Your task to perform on an android device: set an alarm Image 0: 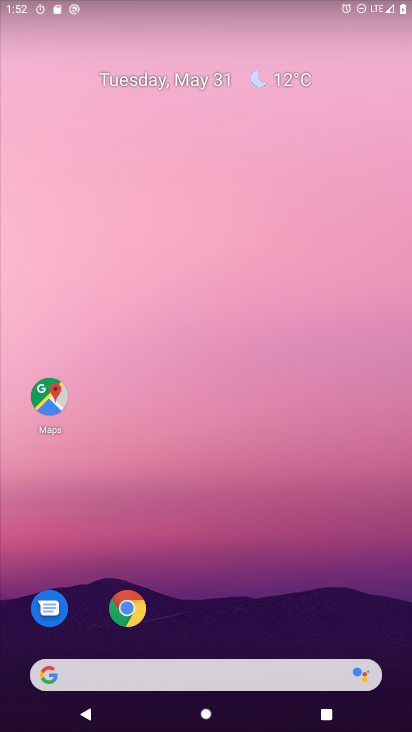
Step 0: drag from (232, 641) to (184, 22)
Your task to perform on an android device: set an alarm Image 1: 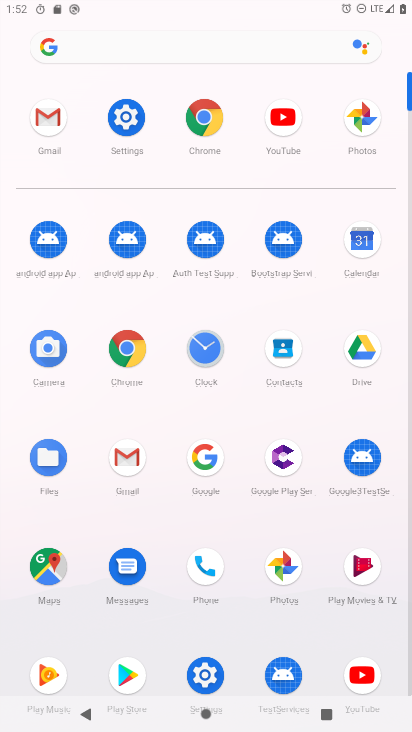
Step 1: click (197, 348)
Your task to perform on an android device: set an alarm Image 2: 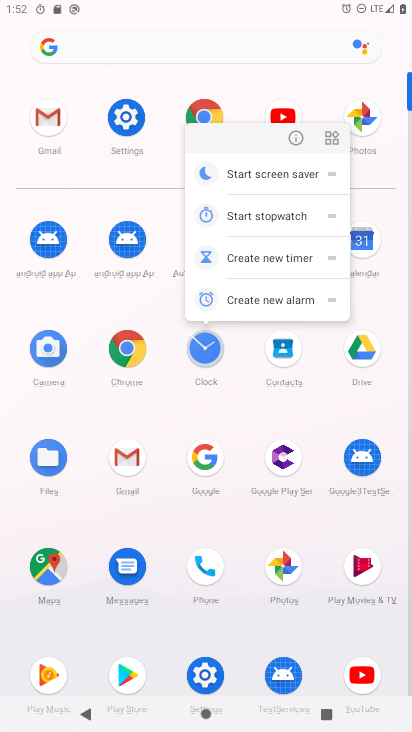
Step 2: click (197, 348)
Your task to perform on an android device: set an alarm Image 3: 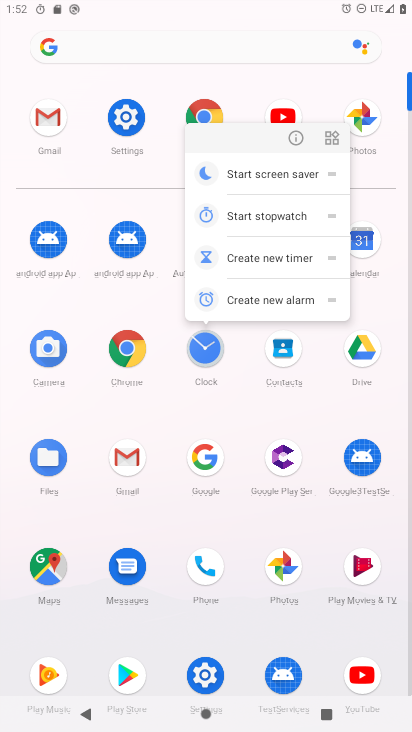
Step 3: click (197, 348)
Your task to perform on an android device: set an alarm Image 4: 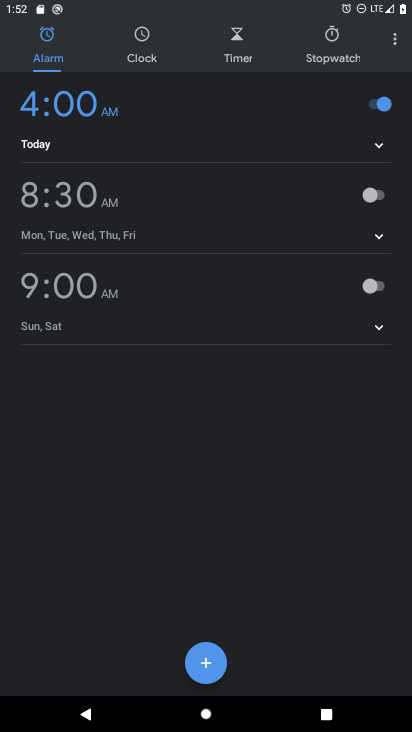
Step 4: click (200, 656)
Your task to perform on an android device: set an alarm Image 5: 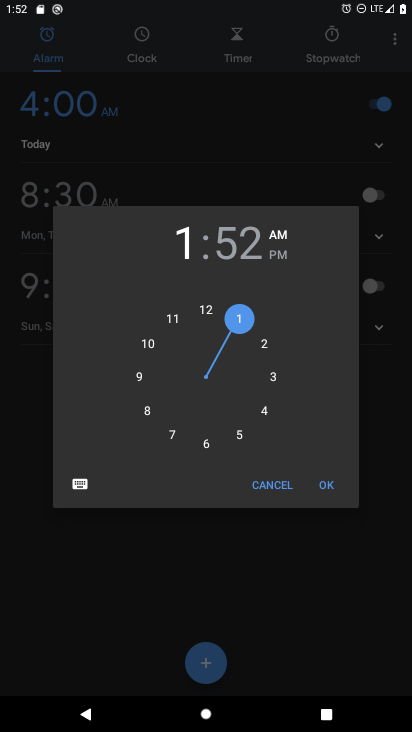
Step 5: click (239, 439)
Your task to perform on an android device: set an alarm Image 6: 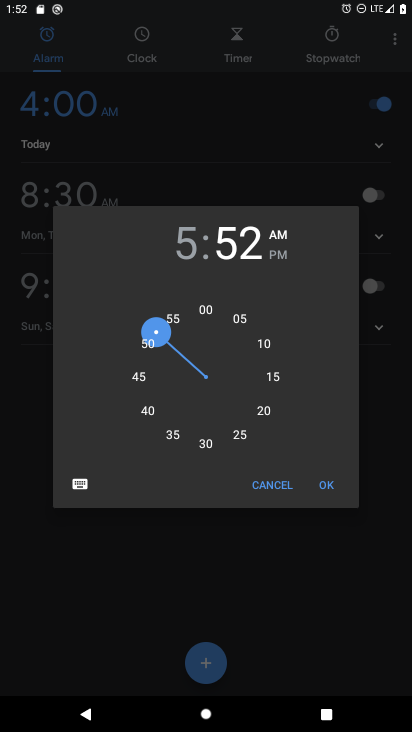
Step 6: click (202, 318)
Your task to perform on an android device: set an alarm Image 7: 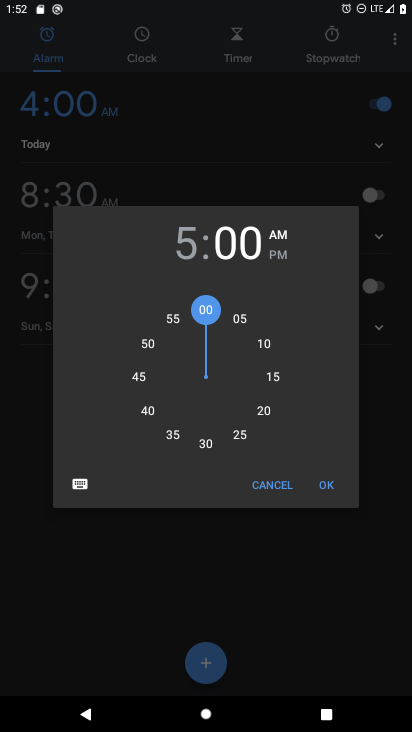
Step 7: click (312, 481)
Your task to perform on an android device: set an alarm Image 8: 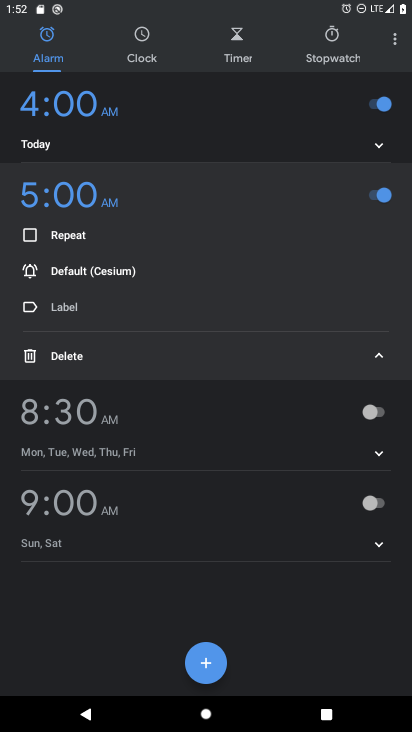
Step 8: task complete